Your task to perform on an android device: Search for vegetarian restaurants on Maps Image 0: 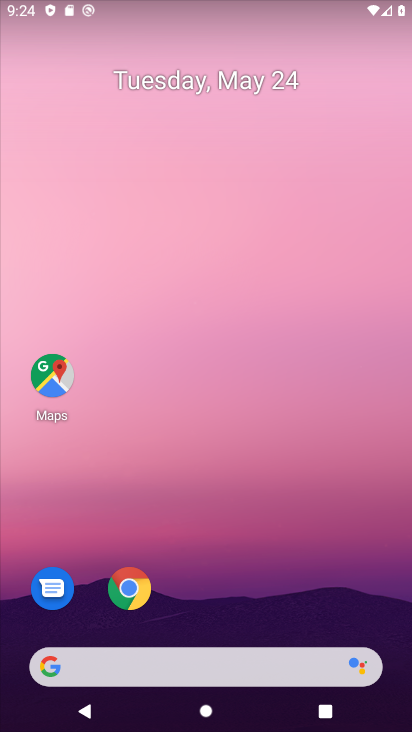
Step 0: drag from (222, 624) to (261, 129)
Your task to perform on an android device: Search for vegetarian restaurants on Maps Image 1: 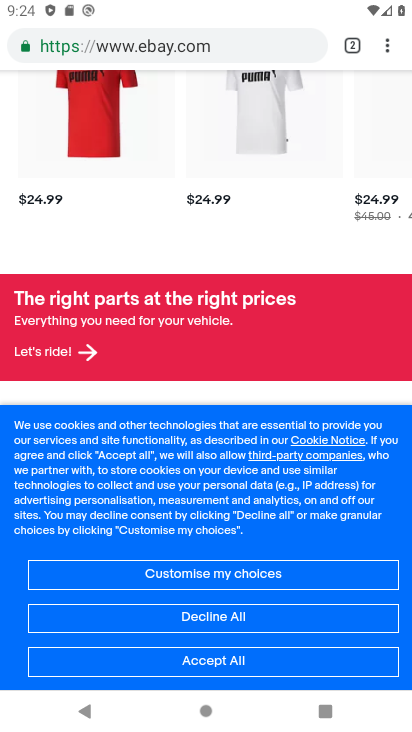
Step 1: press home button
Your task to perform on an android device: Search for vegetarian restaurants on Maps Image 2: 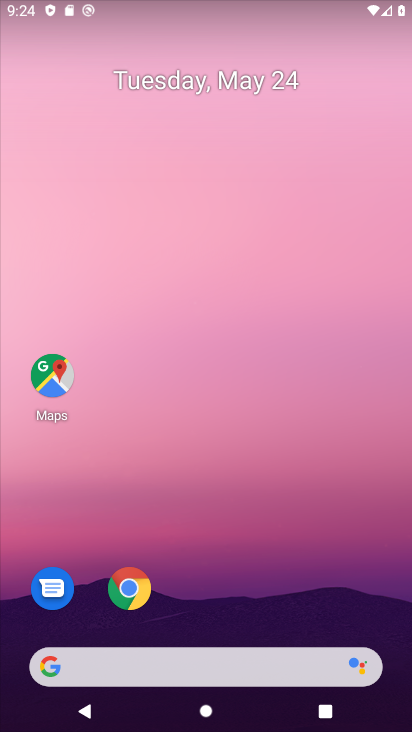
Step 2: click (57, 378)
Your task to perform on an android device: Search for vegetarian restaurants on Maps Image 3: 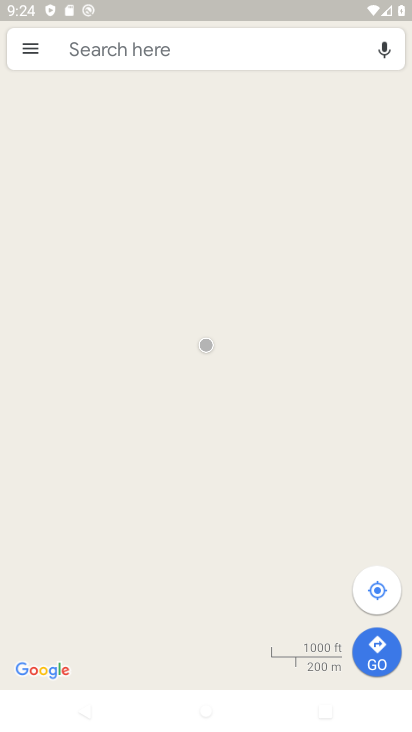
Step 3: click (109, 57)
Your task to perform on an android device: Search for vegetarian restaurants on Maps Image 4: 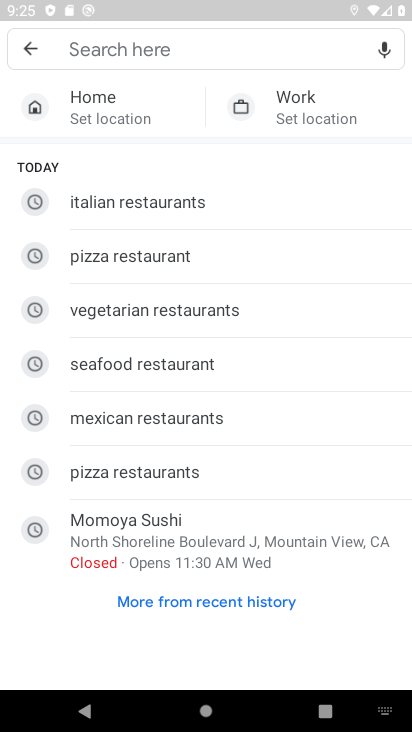
Step 4: click (138, 317)
Your task to perform on an android device: Search for vegetarian restaurants on Maps Image 5: 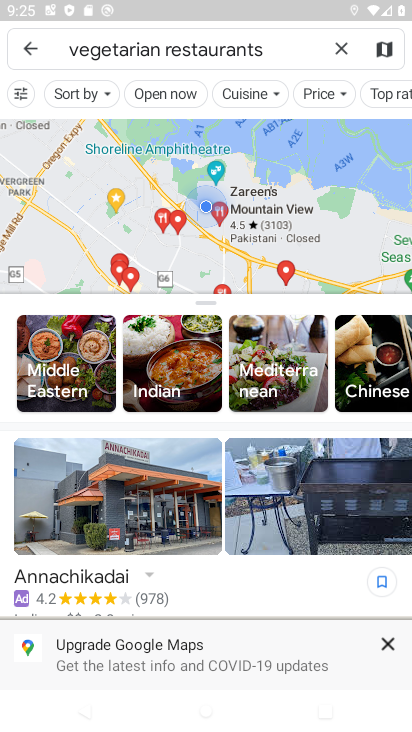
Step 5: task complete